Your task to perform on an android device: change timer sound Image 0: 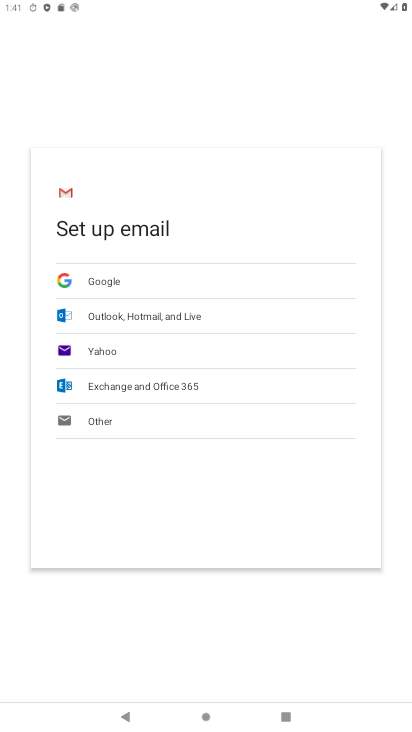
Step 0: press home button
Your task to perform on an android device: change timer sound Image 1: 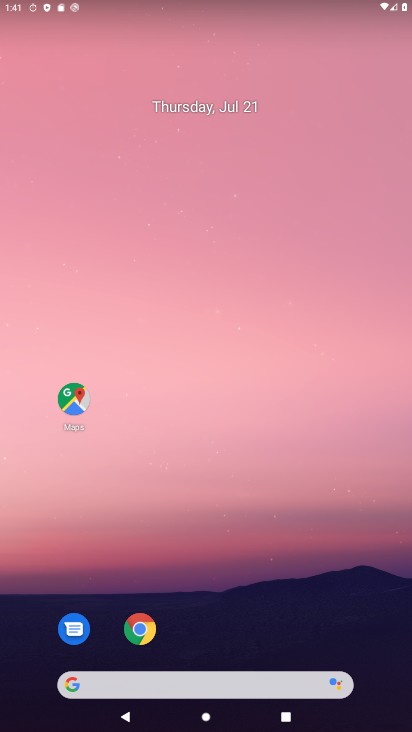
Step 1: drag from (91, 600) to (258, 104)
Your task to perform on an android device: change timer sound Image 2: 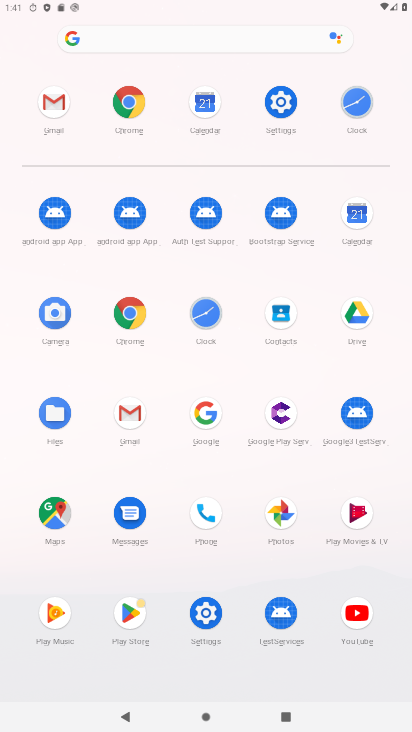
Step 2: click (357, 112)
Your task to perform on an android device: change timer sound Image 3: 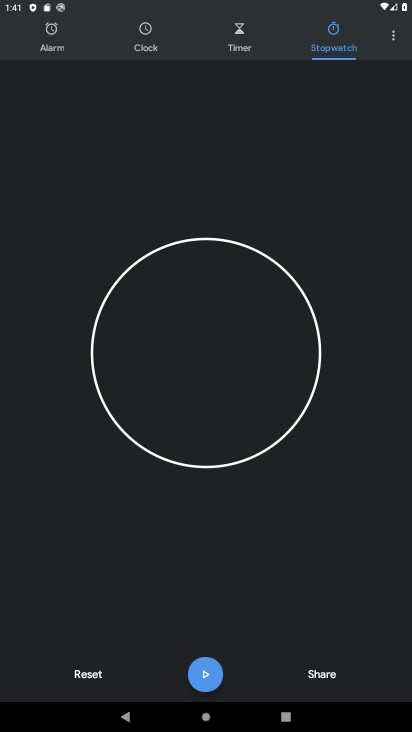
Step 3: click (233, 37)
Your task to perform on an android device: change timer sound Image 4: 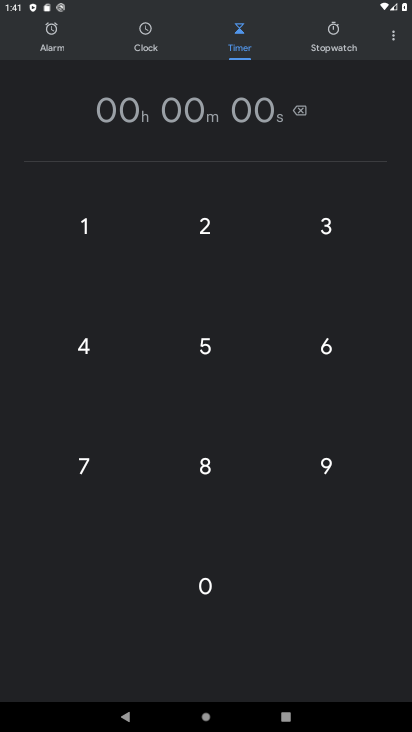
Step 4: click (389, 35)
Your task to perform on an android device: change timer sound Image 5: 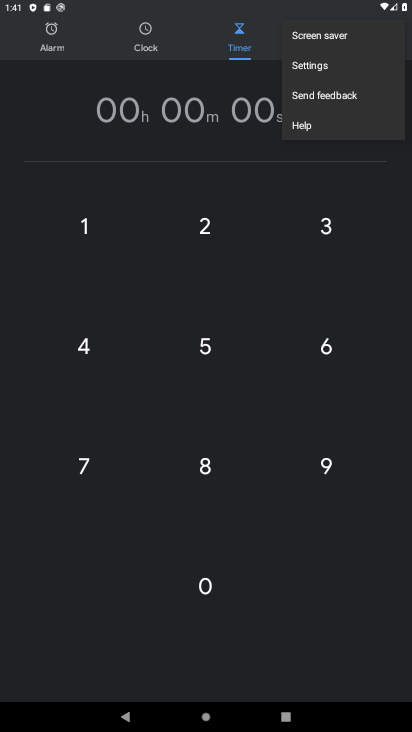
Step 5: click (321, 70)
Your task to perform on an android device: change timer sound Image 6: 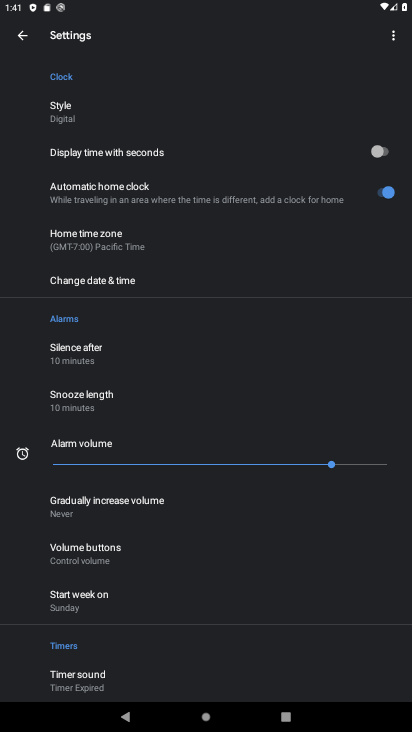
Step 6: drag from (228, 656) to (258, 325)
Your task to perform on an android device: change timer sound Image 7: 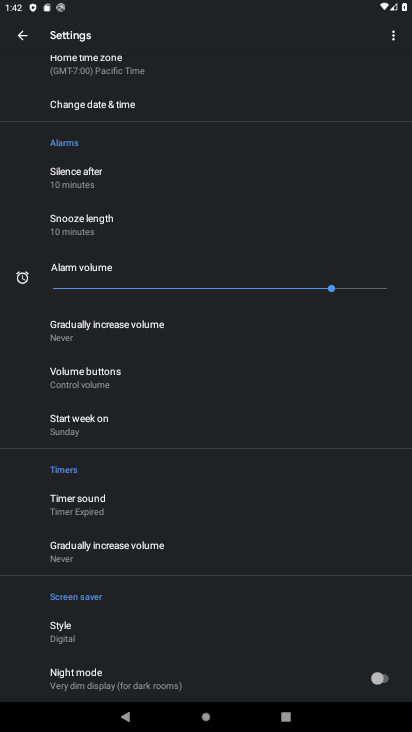
Step 7: click (103, 508)
Your task to perform on an android device: change timer sound Image 8: 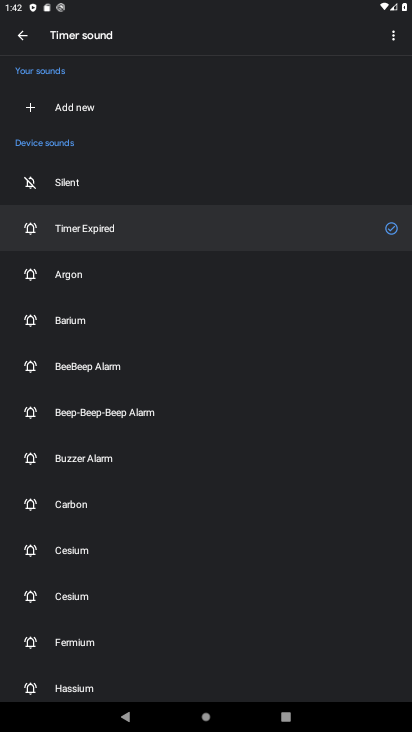
Step 8: click (89, 326)
Your task to perform on an android device: change timer sound Image 9: 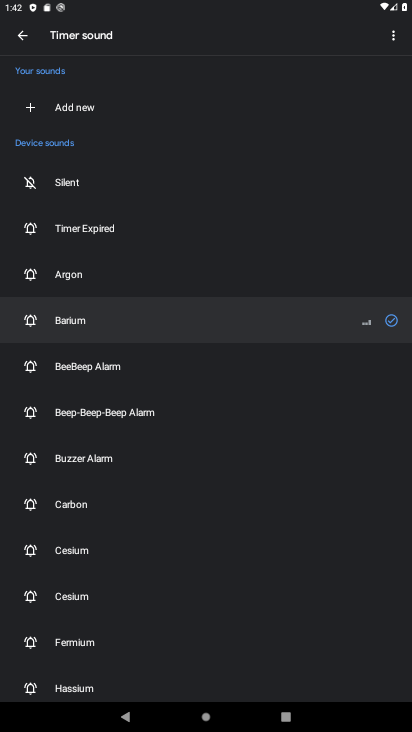
Step 9: click (93, 371)
Your task to perform on an android device: change timer sound Image 10: 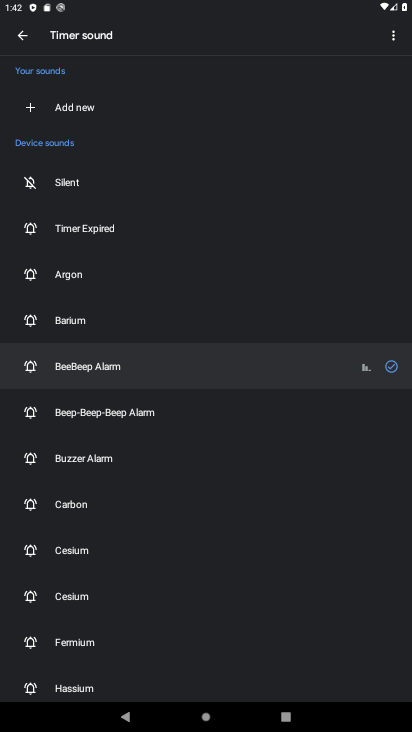
Step 10: task complete